Your task to perform on an android device: Open the map Image 0: 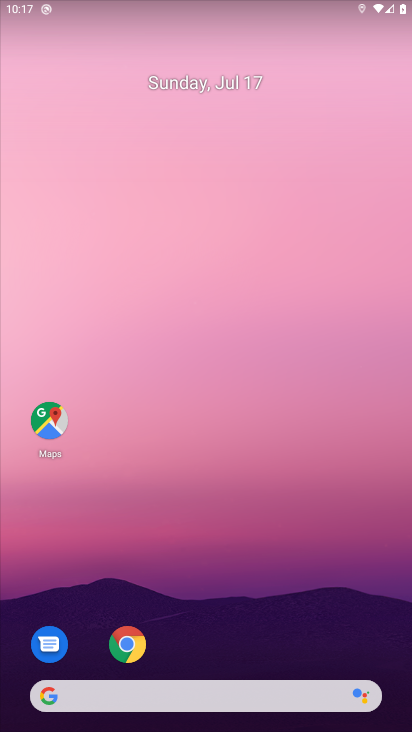
Step 0: press home button
Your task to perform on an android device: Open the map Image 1: 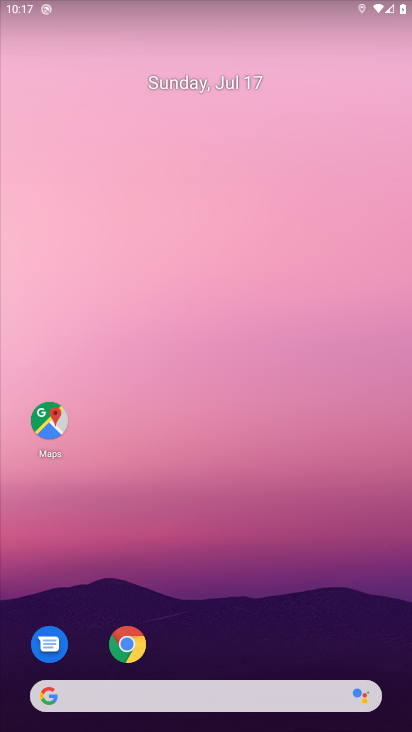
Step 1: click (58, 439)
Your task to perform on an android device: Open the map Image 2: 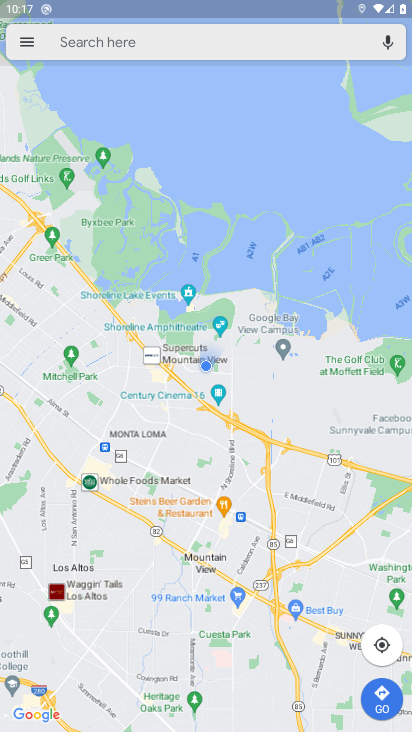
Step 2: task complete